Your task to perform on an android device: What's on Reddit today Image 0: 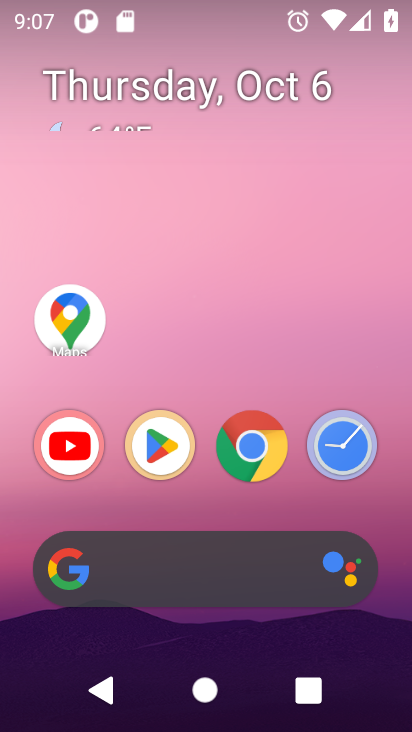
Step 0: click (198, 571)
Your task to perform on an android device: What's on Reddit today Image 1: 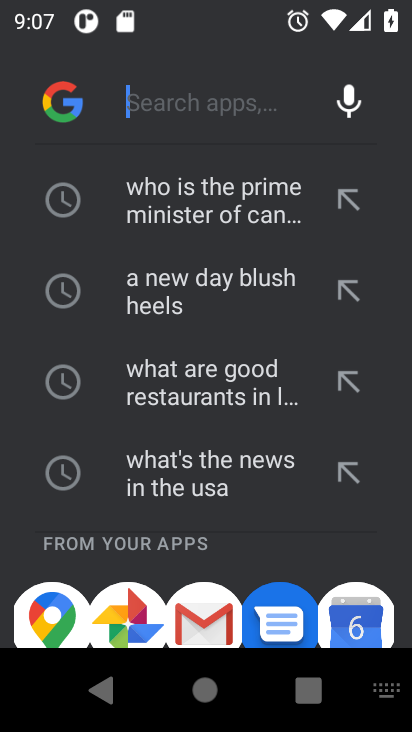
Step 1: type "redit"
Your task to perform on an android device: What's on Reddit today Image 2: 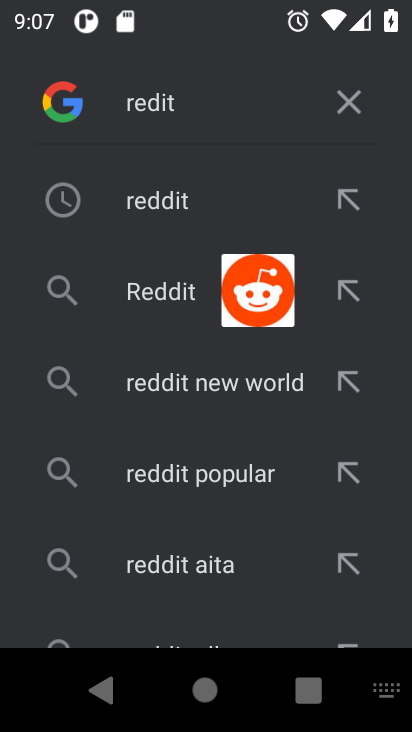
Step 2: click (235, 178)
Your task to perform on an android device: What's on Reddit today Image 3: 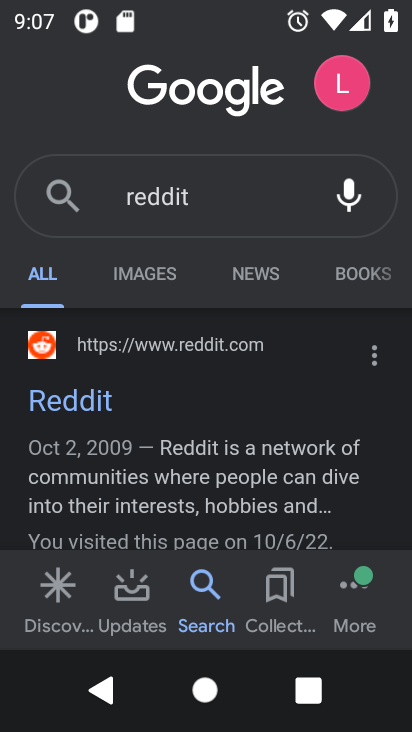
Step 3: click (157, 336)
Your task to perform on an android device: What's on Reddit today Image 4: 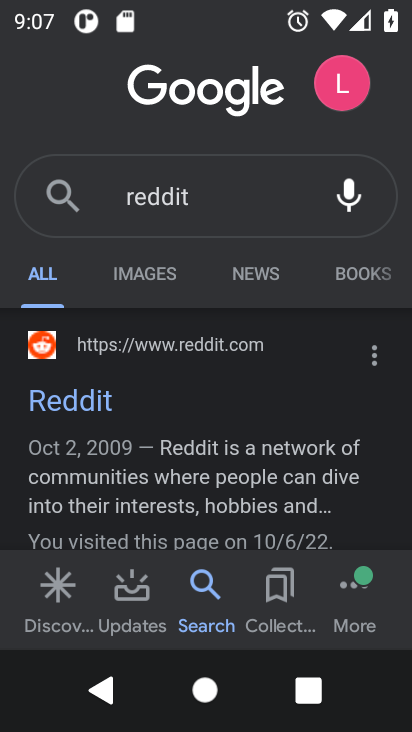
Step 4: task complete